Your task to perform on an android device: toggle notification dots Image 0: 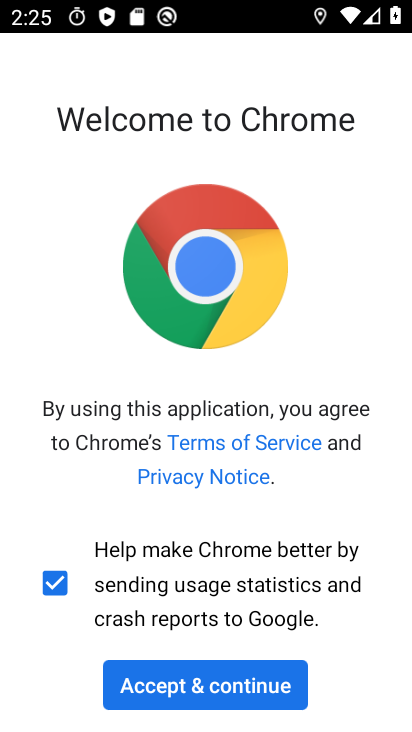
Step 0: press home button
Your task to perform on an android device: toggle notification dots Image 1: 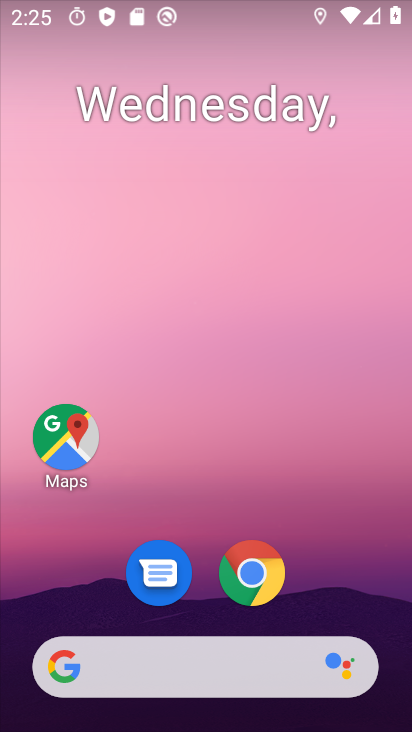
Step 1: drag from (201, 603) to (199, 266)
Your task to perform on an android device: toggle notification dots Image 2: 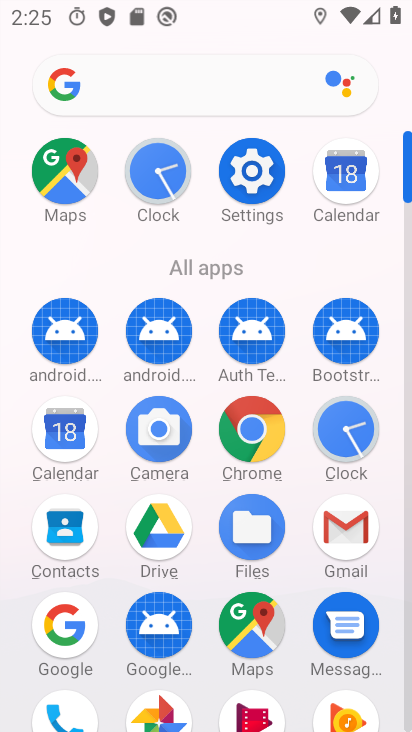
Step 2: click (261, 195)
Your task to perform on an android device: toggle notification dots Image 3: 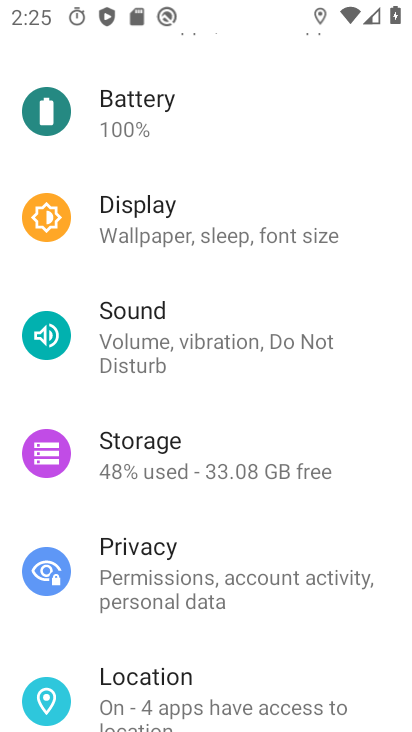
Step 3: drag from (240, 627) to (226, 401)
Your task to perform on an android device: toggle notification dots Image 4: 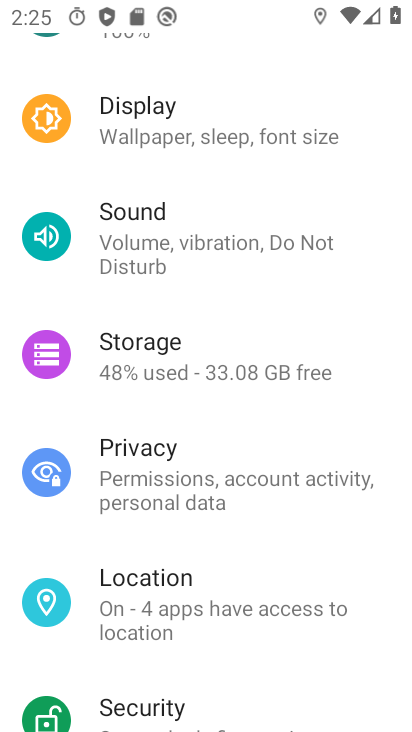
Step 4: drag from (220, 600) to (262, 318)
Your task to perform on an android device: toggle notification dots Image 5: 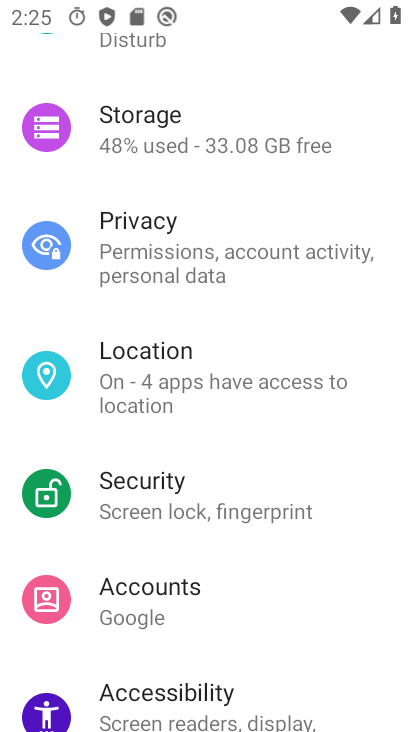
Step 5: drag from (262, 347) to (262, 604)
Your task to perform on an android device: toggle notification dots Image 6: 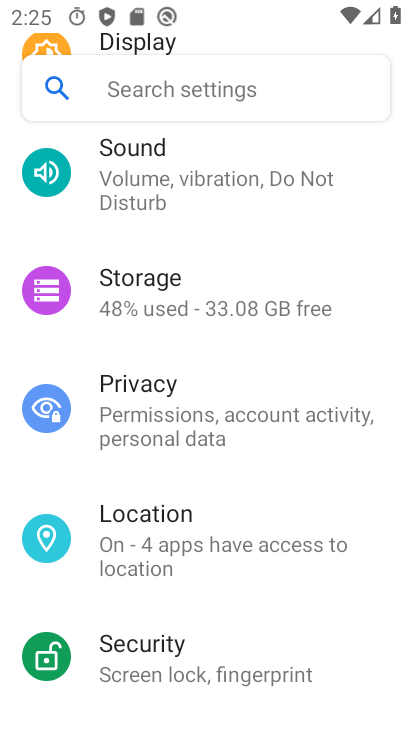
Step 6: drag from (234, 243) to (272, 579)
Your task to perform on an android device: toggle notification dots Image 7: 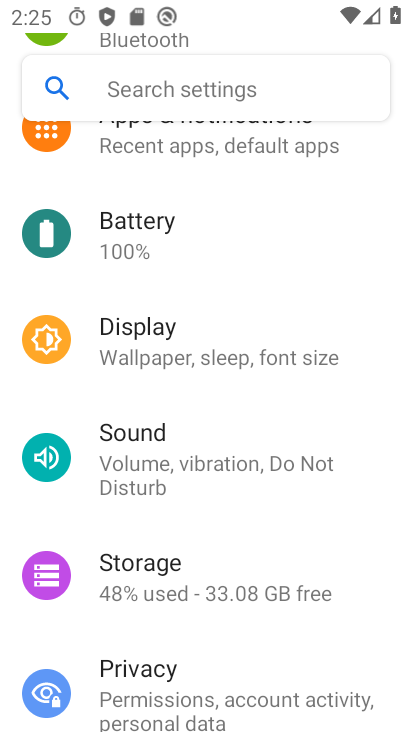
Step 7: drag from (247, 156) to (271, 381)
Your task to perform on an android device: toggle notification dots Image 8: 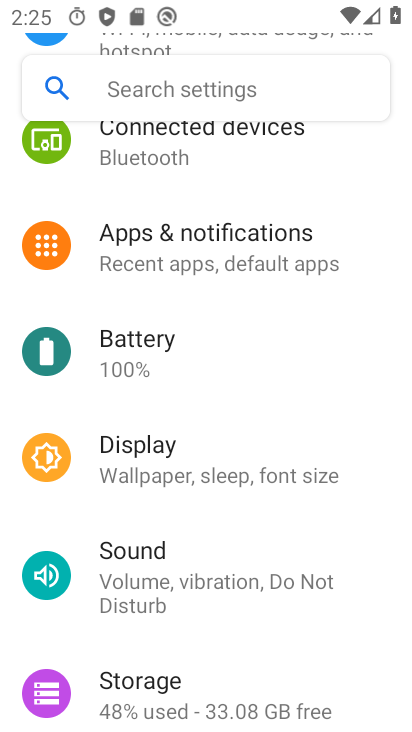
Step 8: click (250, 270)
Your task to perform on an android device: toggle notification dots Image 9: 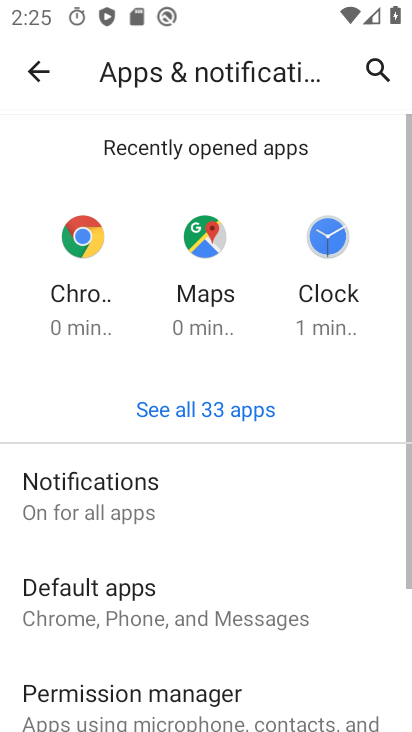
Step 9: click (158, 493)
Your task to perform on an android device: toggle notification dots Image 10: 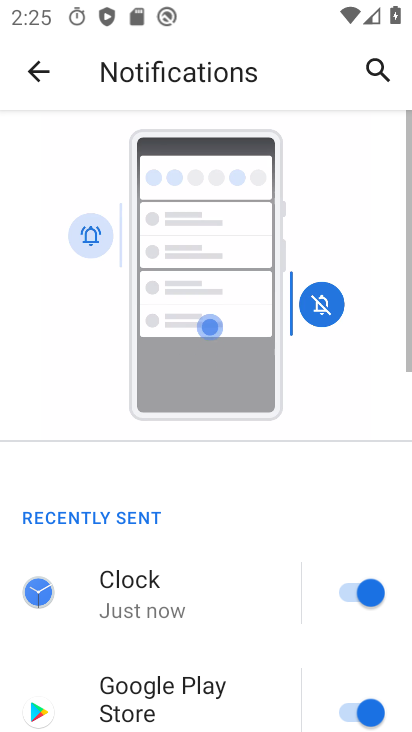
Step 10: drag from (188, 578) to (242, 239)
Your task to perform on an android device: toggle notification dots Image 11: 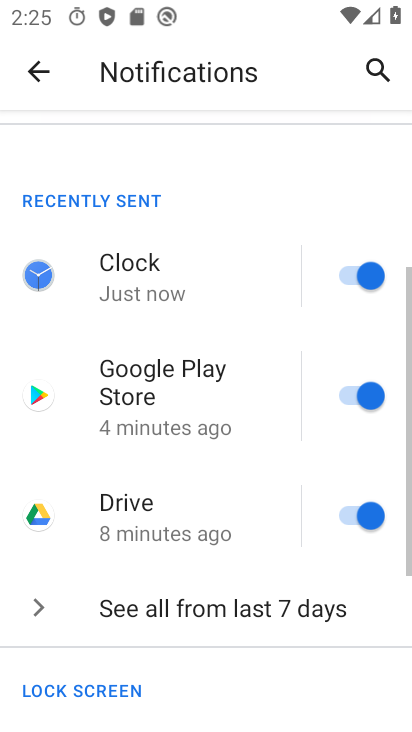
Step 11: drag from (241, 551) to (275, 287)
Your task to perform on an android device: toggle notification dots Image 12: 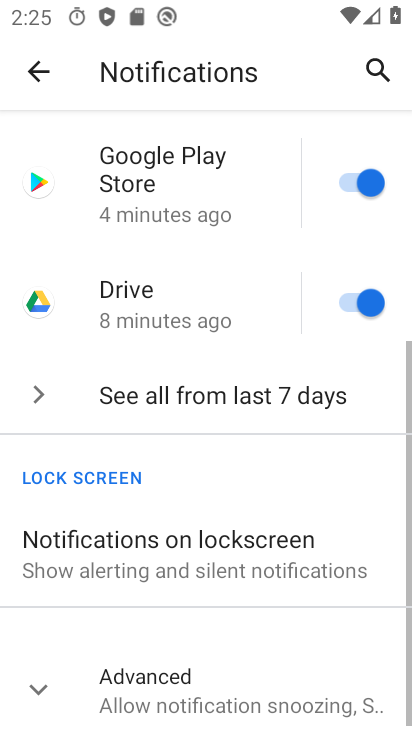
Step 12: drag from (230, 651) to (254, 428)
Your task to perform on an android device: toggle notification dots Image 13: 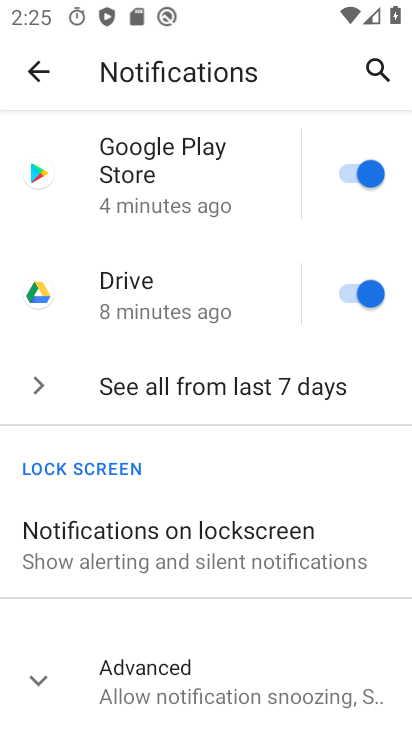
Step 13: click (179, 668)
Your task to perform on an android device: toggle notification dots Image 14: 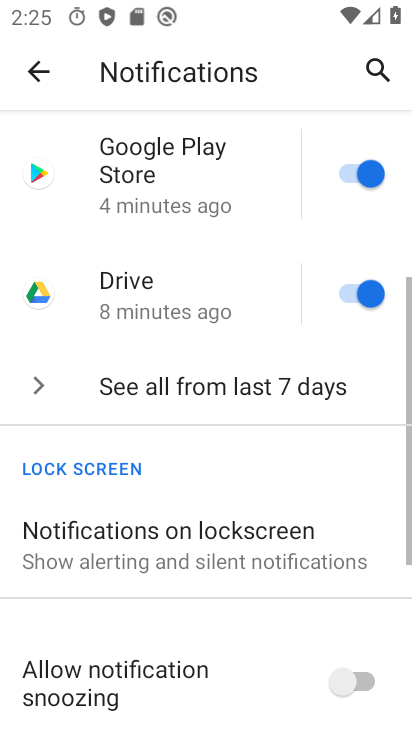
Step 14: drag from (201, 659) to (287, 352)
Your task to perform on an android device: toggle notification dots Image 15: 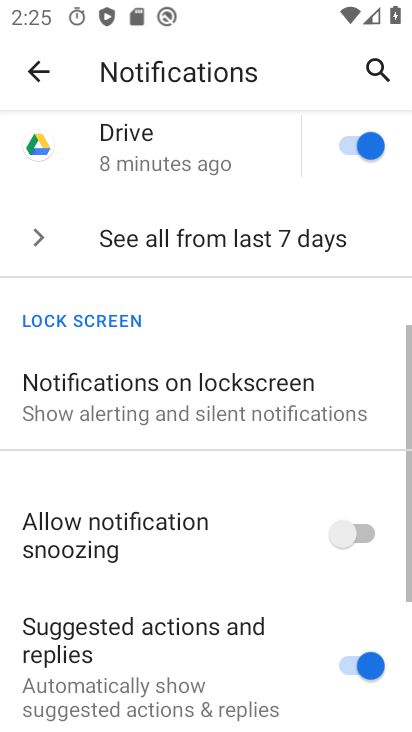
Step 15: drag from (245, 617) to (261, 363)
Your task to perform on an android device: toggle notification dots Image 16: 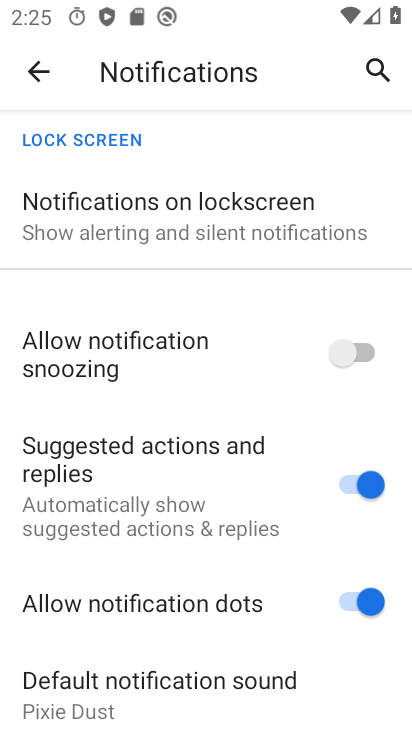
Step 16: click (348, 600)
Your task to perform on an android device: toggle notification dots Image 17: 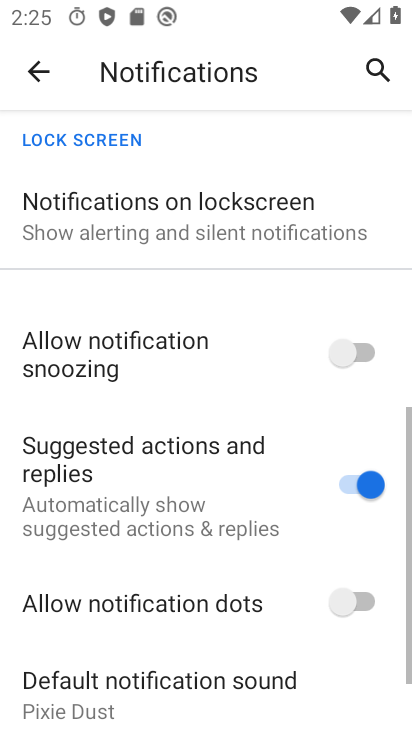
Step 17: task complete